Your task to perform on an android device: Open Youtube and go to "Your channel" Image 0: 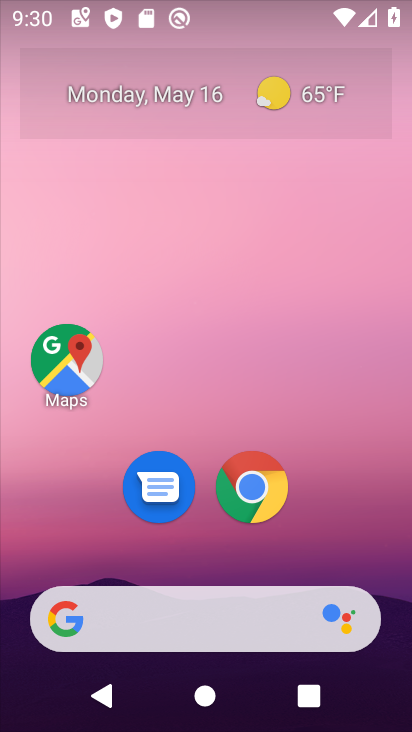
Step 0: drag from (361, 496) to (356, 157)
Your task to perform on an android device: Open Youtube and go to "Your channel" Image 1: 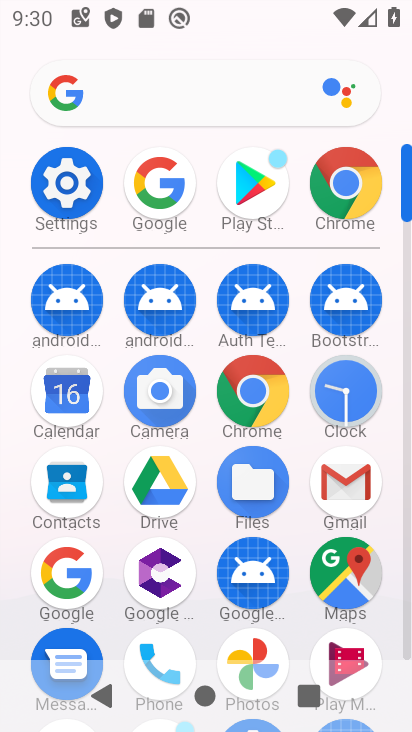
Step 1: drag from (198, 526) to (221, 234)
Your task to perform on an android device: Open Youtube and go to "Your channel" Image 2: 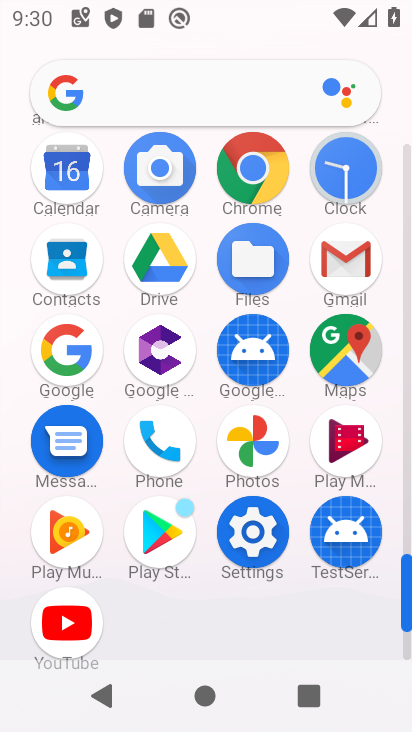
Step 2: click (83, 632)
Your task to perform on an android device: Open Youtube and go to "Your channel" Image 3: 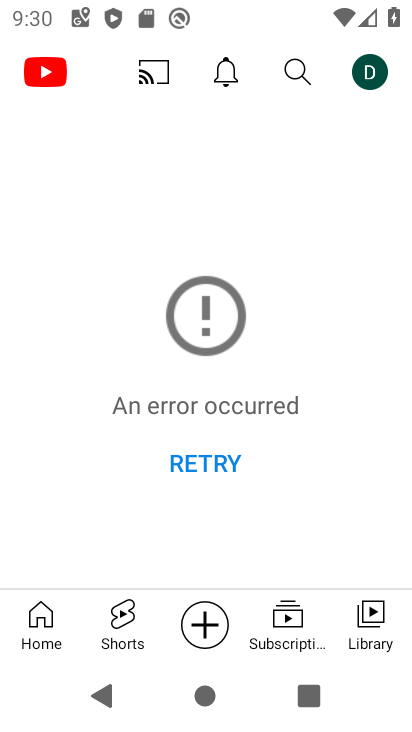
Step 3: click (378, 72)
Your task to perform on an android device: Open Youtube and go to "Your channel" Image 4: 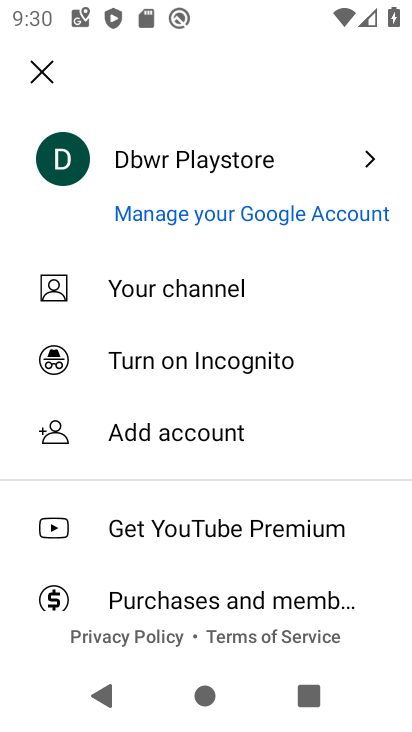
Step 4: click (213, 293)
Your task to perform on an android device: Open Youtube and go to "Your channel" Image 5: 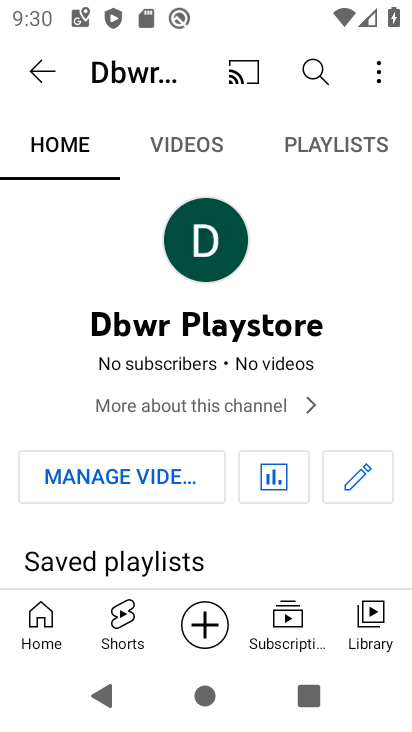
Step 5: press home button
Your task to perform on an android device: Open Youtube and go to "Your channel" Image 6: 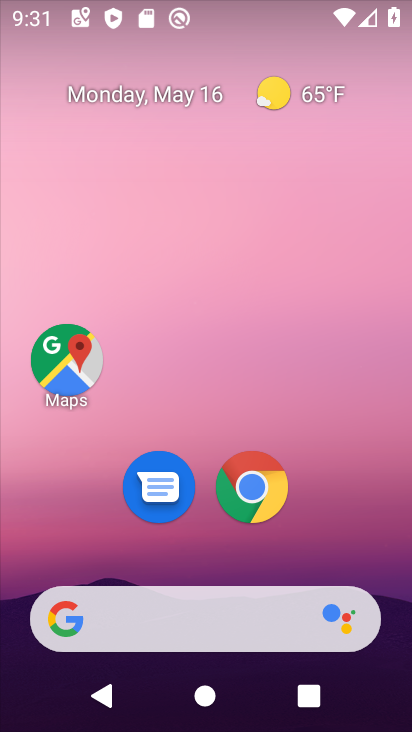
Step 6: drag from (365, 514) to (390, 115)
Your task to perform on an android device: Open Youtube and go to "Your channel" Image 7: 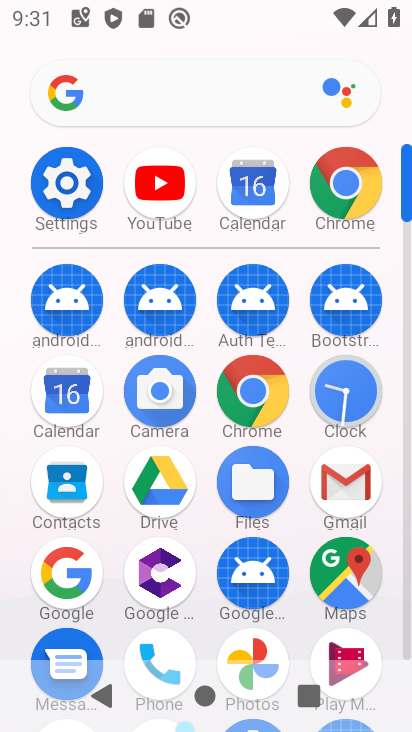
Step 7: click (183, 181)
Your task to perform on an android device: Open Youtube and go to "Your channel" Image 8: 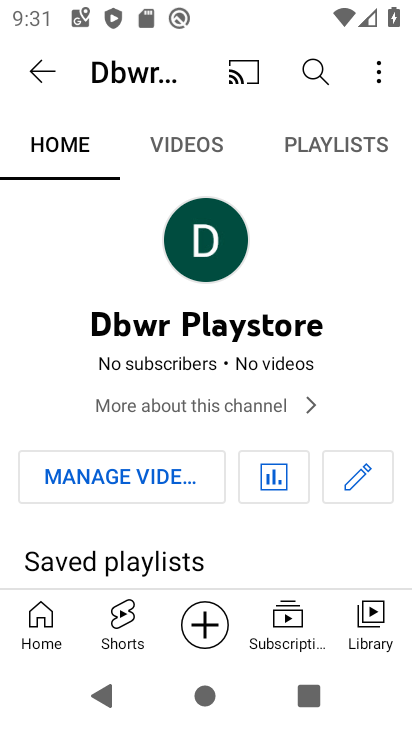
Step 8: click (379, 74)
Your task to perform on an android device: Open Youtube and go to "Your channel" Image 9: 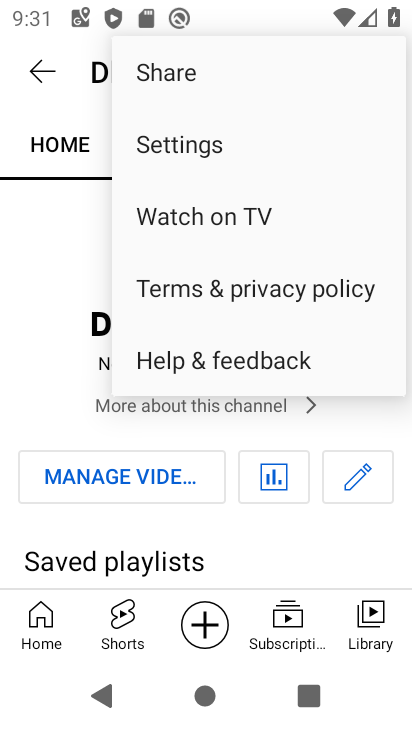
Step 9: task complete